Your task to perform on an android device: Go to Google Image 0: 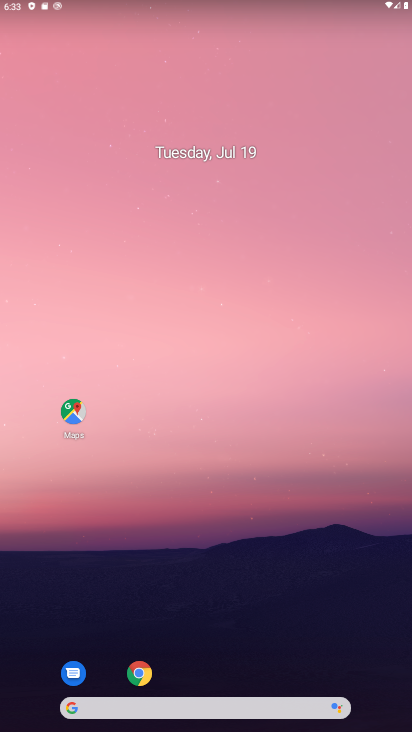
Step 0: drag from (401, 671) to (164, 2)
Your task to perform on an android device: Go to Google Image 1: 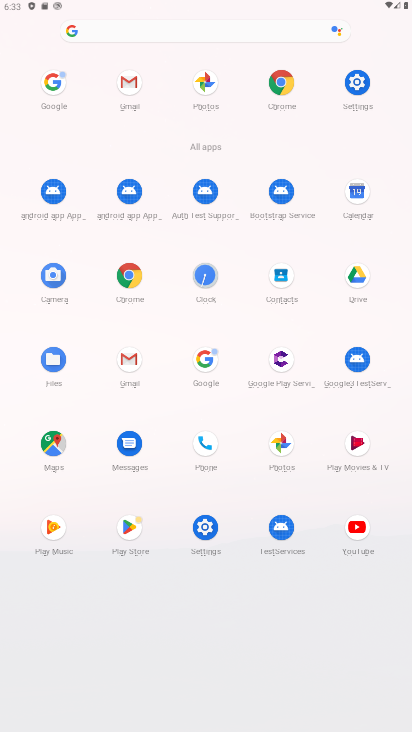
Step 1: click (199, 362)
Your task to perform on an android device: Go to Google Image 2: 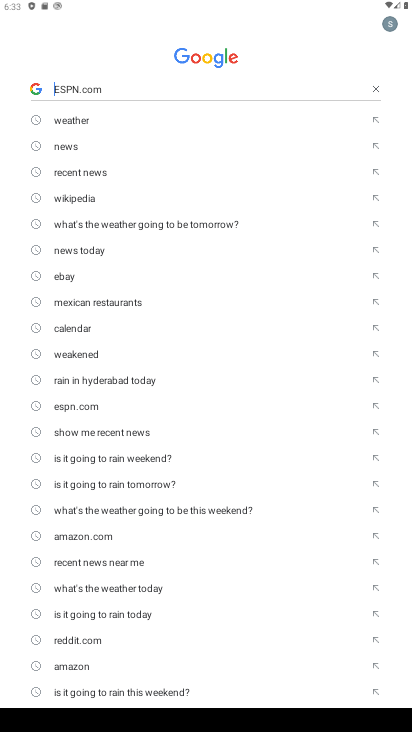
Step 2: click (375, 88)
Your task to perform on an android device: Go to Google Image 3: 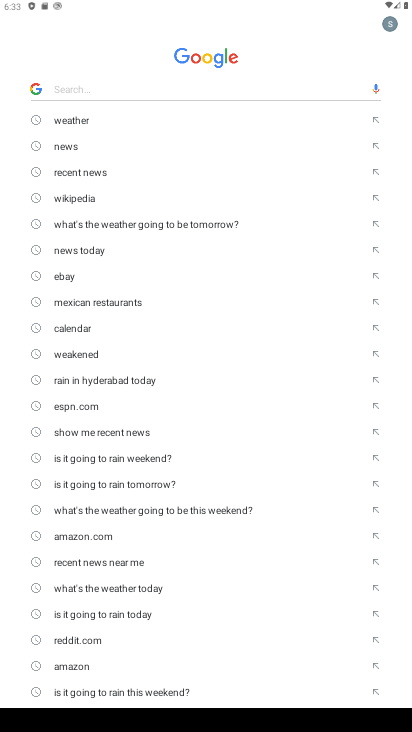
Step 3: press back button
Your task to perform on an android device: Go to Google Image 4: 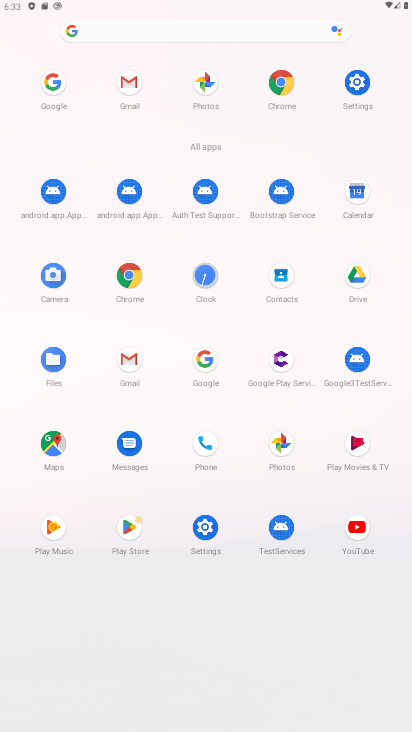
Step 4: click (205, 360)
Your task to perform on an android device: Go to Google Image 5: 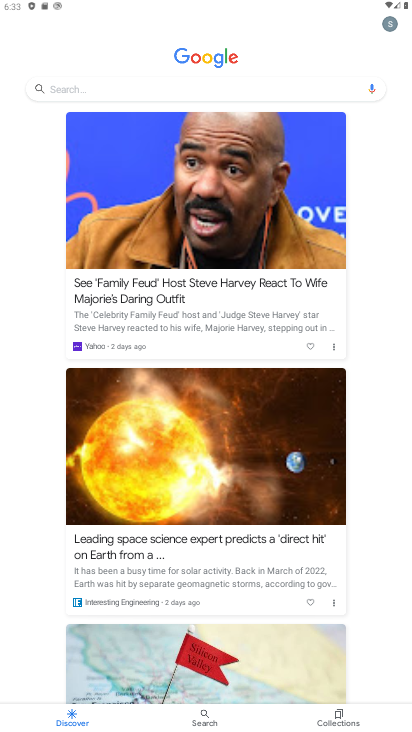
Step 5: task complete